Your task to perform on an android device: Go to Amazon Image 0: 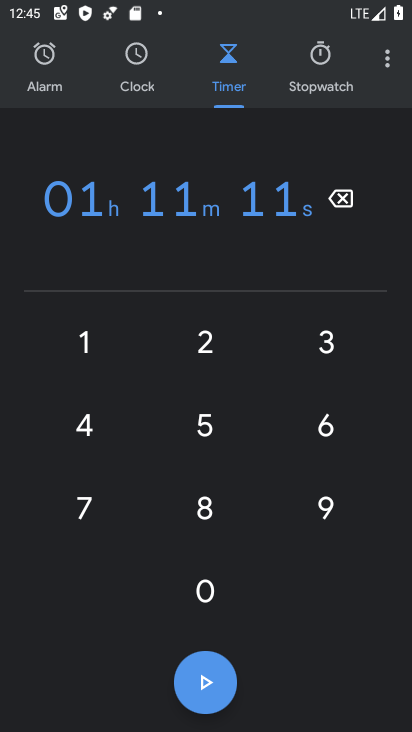
Step 0: press home button
Your task to perform on an android device: Go to Amazon Image 1: 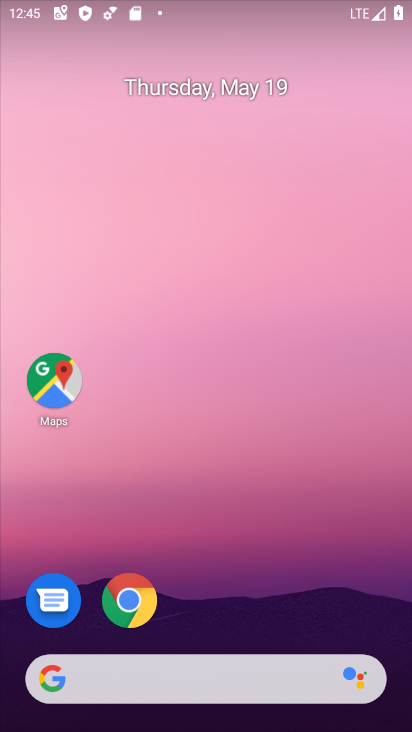
Step 1: click (130, 597)
Your task to perform on an android device: Go to Amazon Image 2: 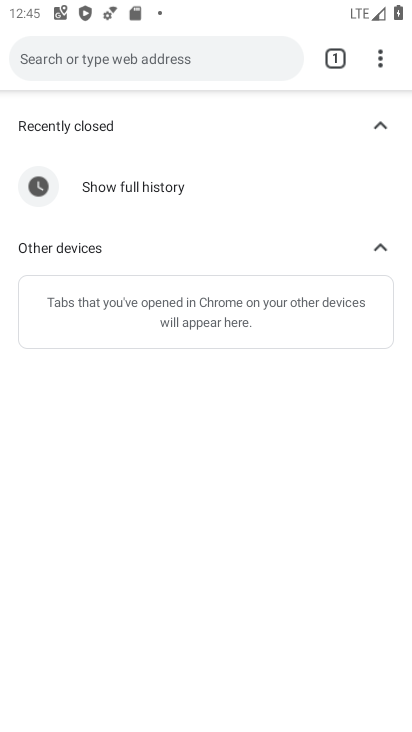
Step 2: press back button
Your task to perform on an android device: Go to Amazon Image 3: 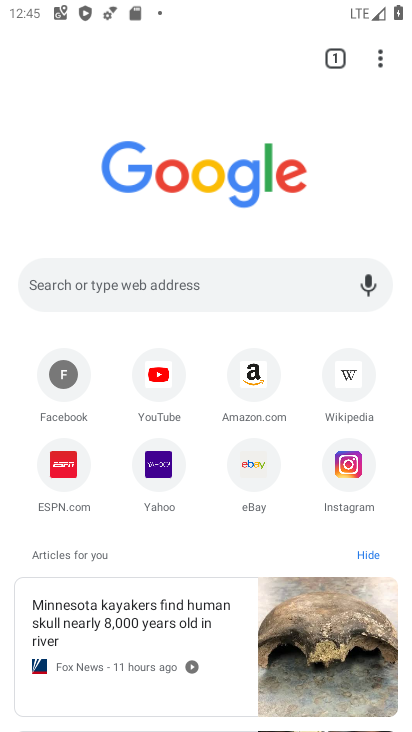
Step 3: click (249, 376)
Your task to perform on an android device: Go to Amazon Image 4: 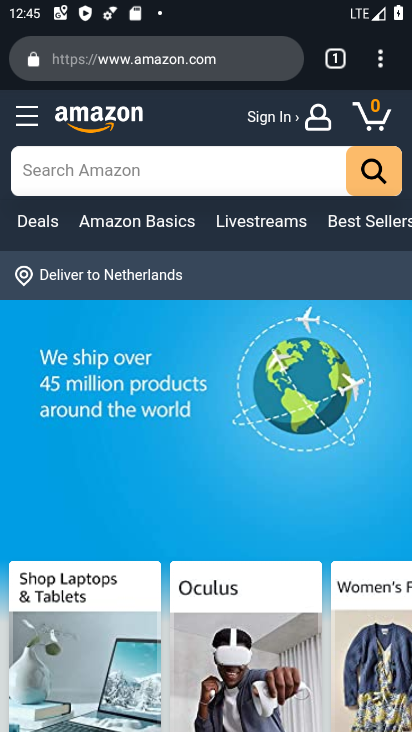
Step 4: task complete